Your task to perform on an android device: Go to Wikipedia Image 0: 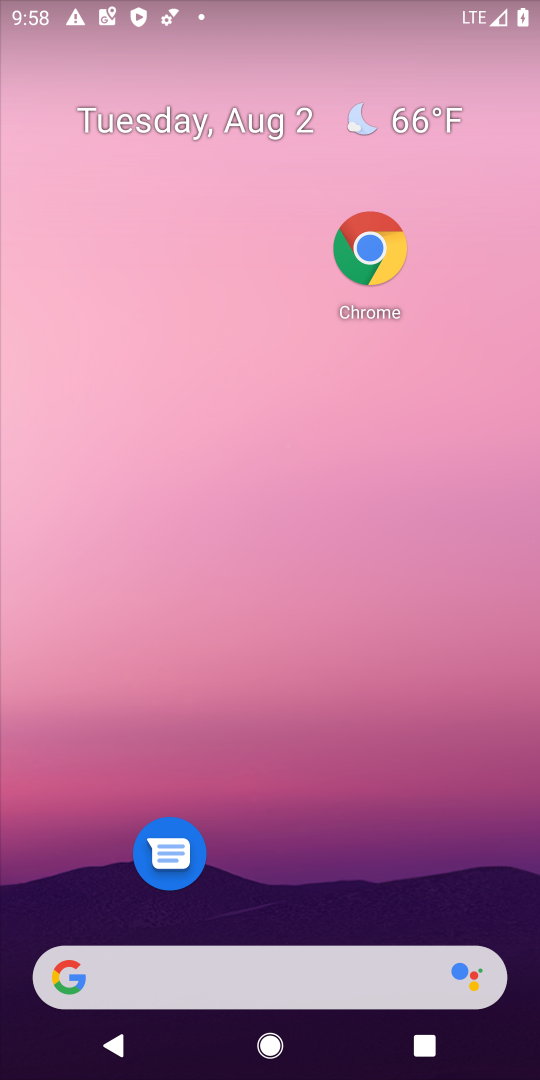
Step 0: drag from (275, 936) to (519, 858)
Your task to perform on an android device: Go to Wikipedia Image 1: 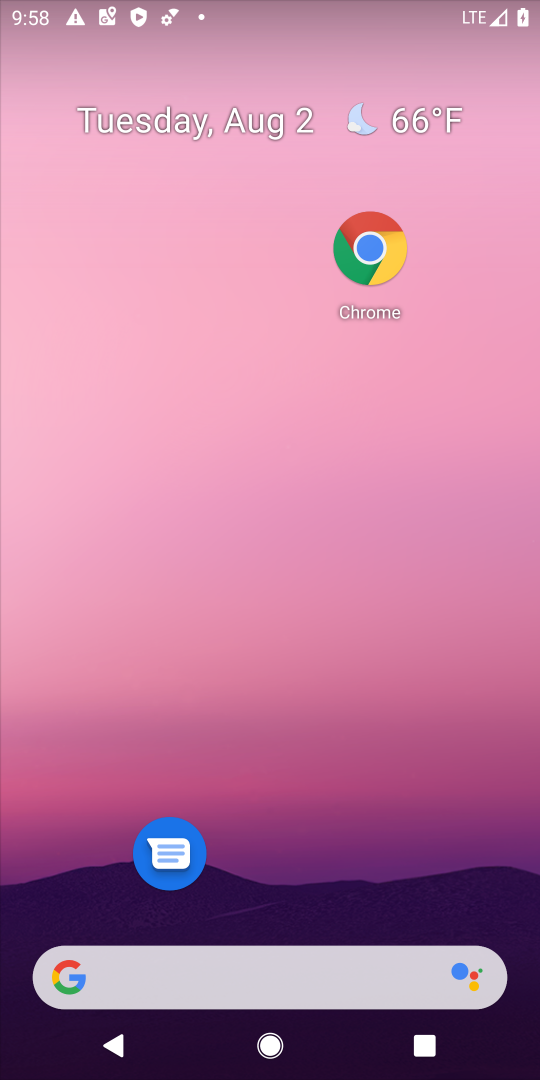
Step 1: drag from (308, 882) to (467, 15)
Your task to perform on an android device: Go to Wikipedia Image 2: 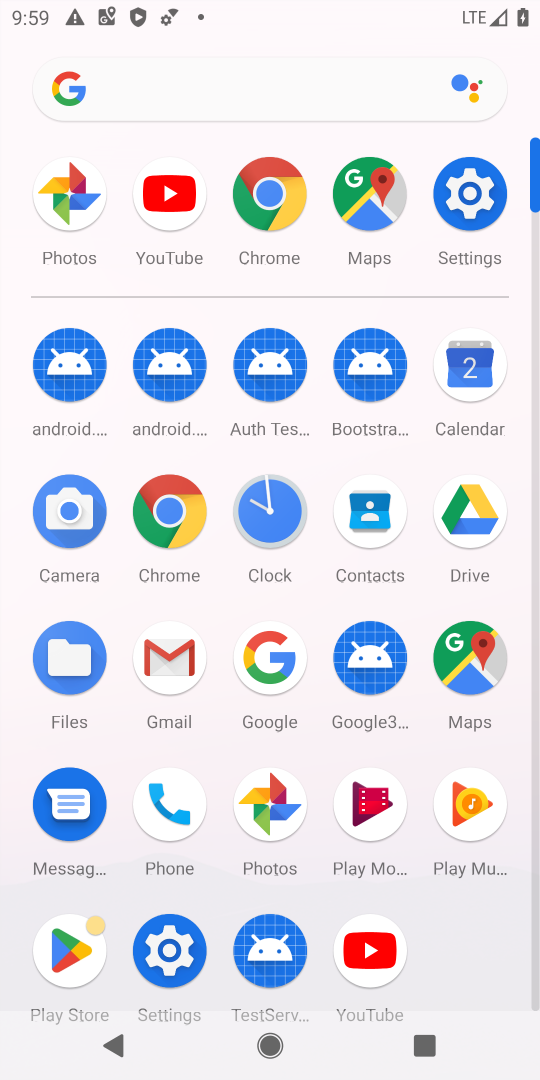
Step 2: click (167, 500)
Your task to perform on an android device: Go to Wikipedia Image 3: 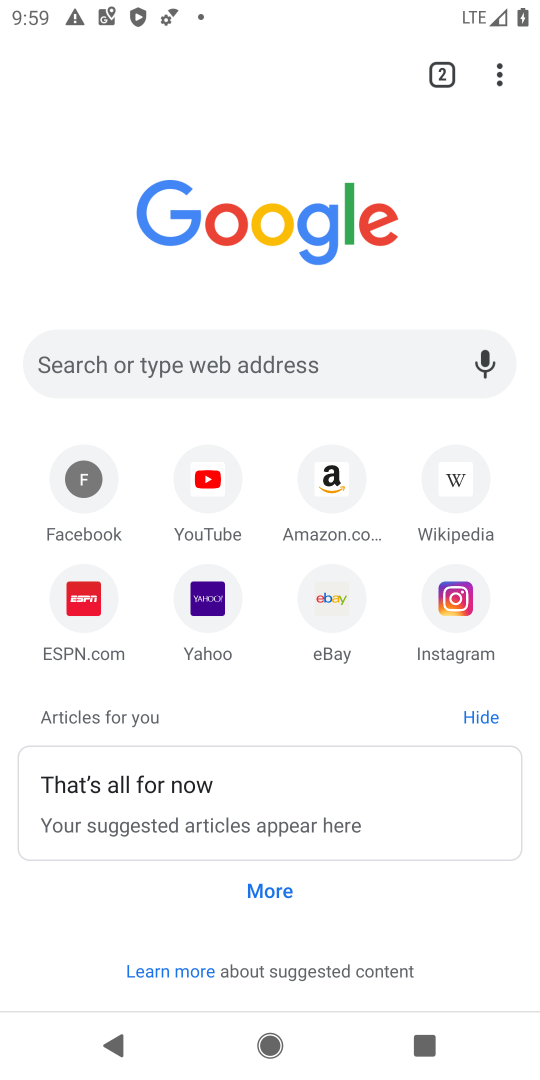
Step 3: click (466, 486)
Your task to perform on an android device: Go to Wikipedia Image 4: 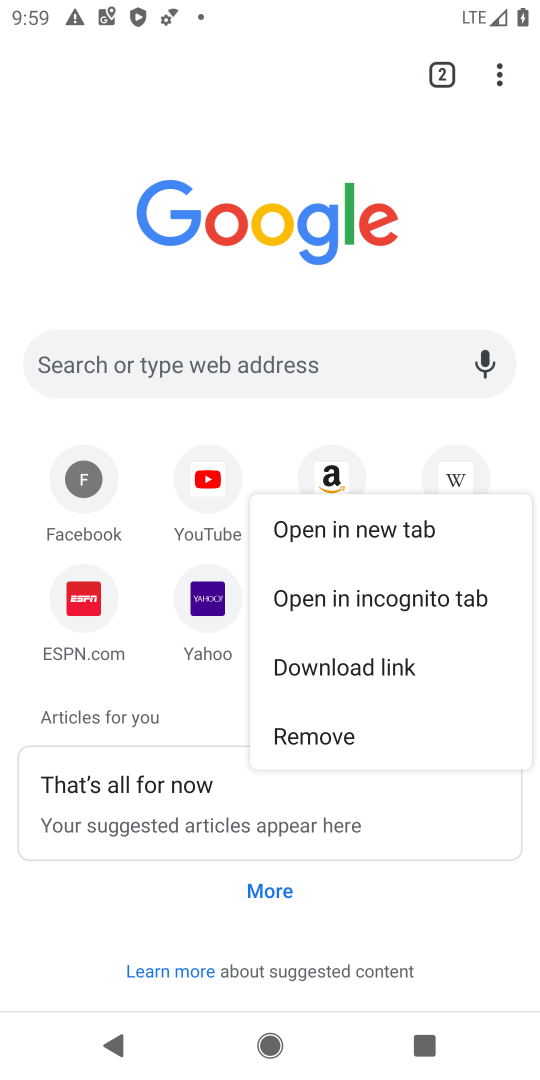
Step 4: click (440, 470)
Your task to perform on an android device: Go to Wikipedia Image 5: 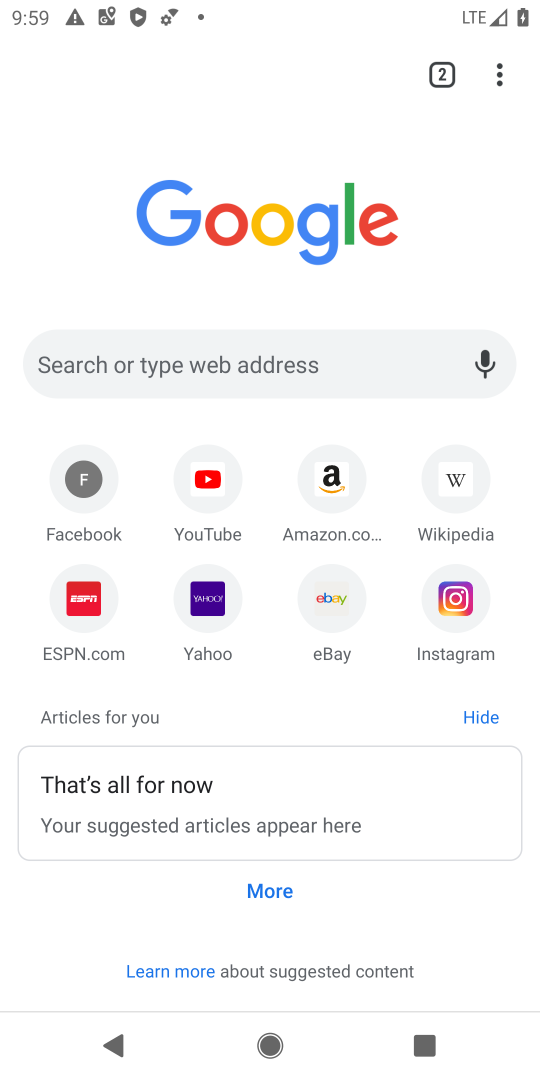
Step 5: click (449, 488)
Your task to perform on an android device: Go to Wikipedia Image 6: 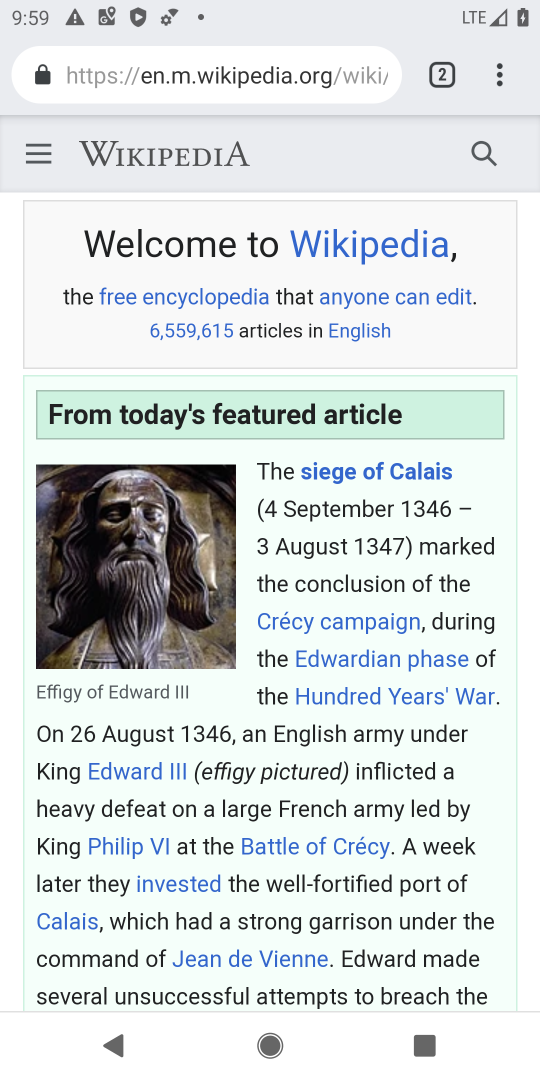
Step 6: task complete